Your task to perform on an android device: Go to Google maps Image 0: 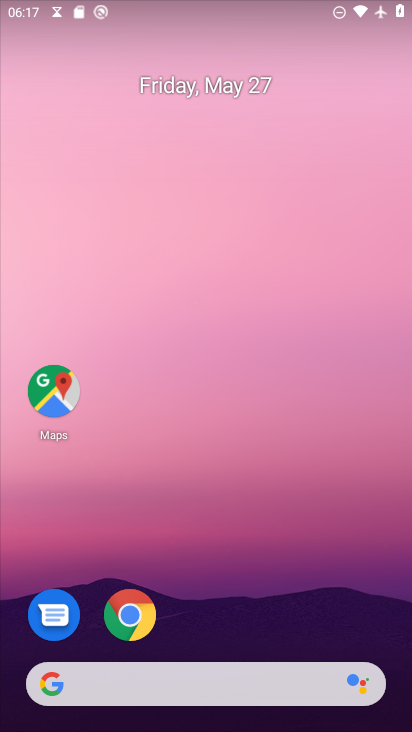
Step 0: click (57, 397)
Your task to perform on an android device: Go to Google maps Image 1: 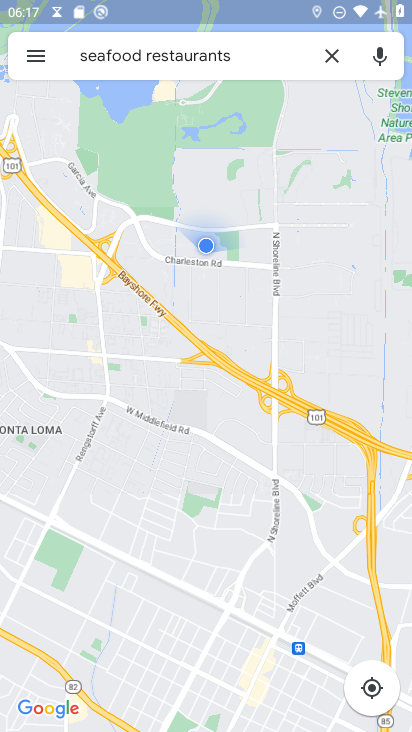
Step 1: task complete